Your task to perform on an android device: Open Yahoo.com Image 0: 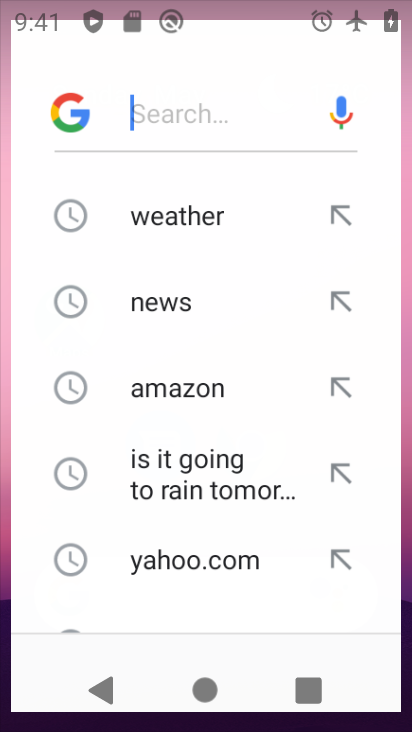
Step 0: drag from (211, 503) to (268, 100)
Your task to perform on an android device: Open Yahoo.com Image 1: 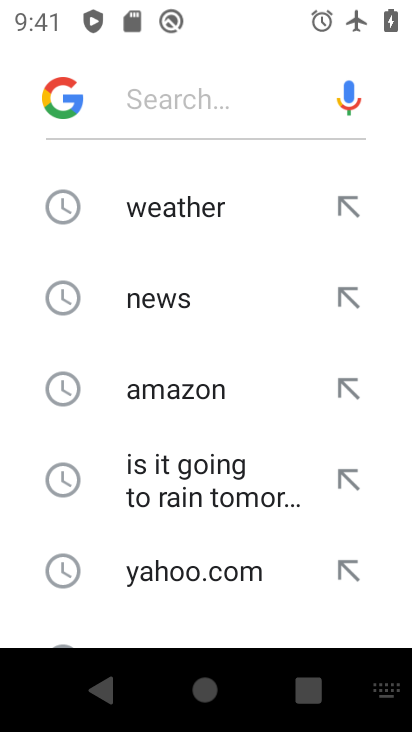
Step 1: press home button
Your task to perform on an android device: Open Yahoo.com Image 2: 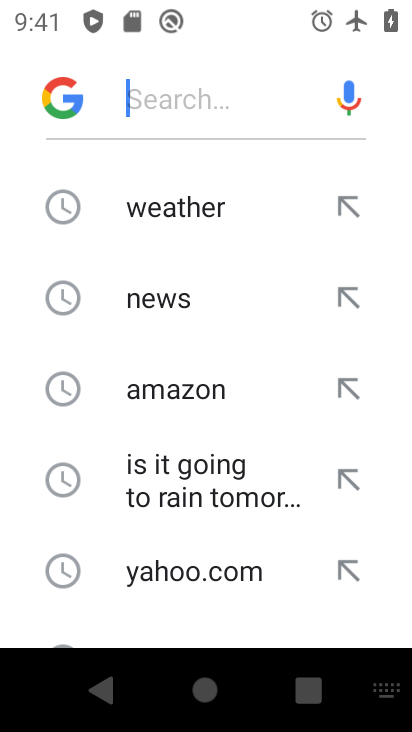
Step 2: press home button
Your task to perform on an android device: Open Yahoo.com Image 3: 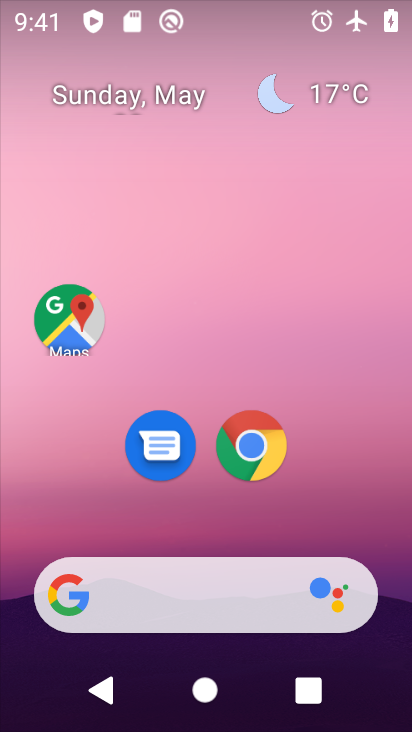
Step 3: drag from (230, 517) to (235, 158)
Your task to perform on an android device: Open Yahoo.com Image 4: 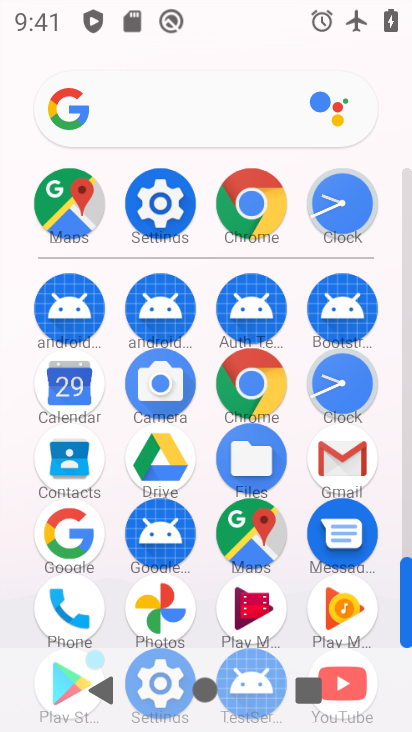
Step 4: click (167, 111)
Your task to perform on an android device: Open Yahoo.com Image 5: 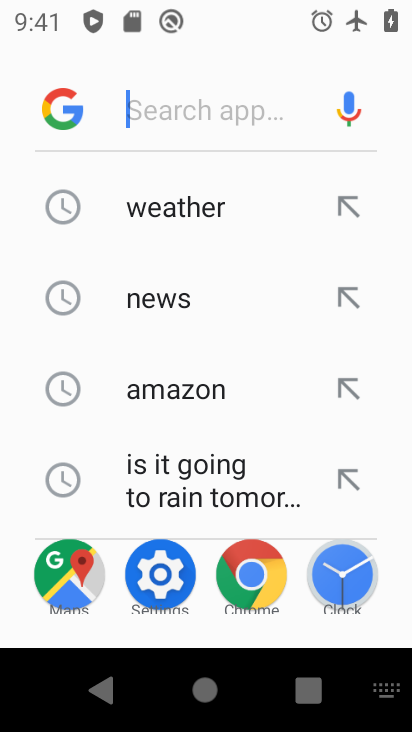
Step 5: click (159, 111)
Your task to perform on an android device: Open Yahoo.com Image 6: 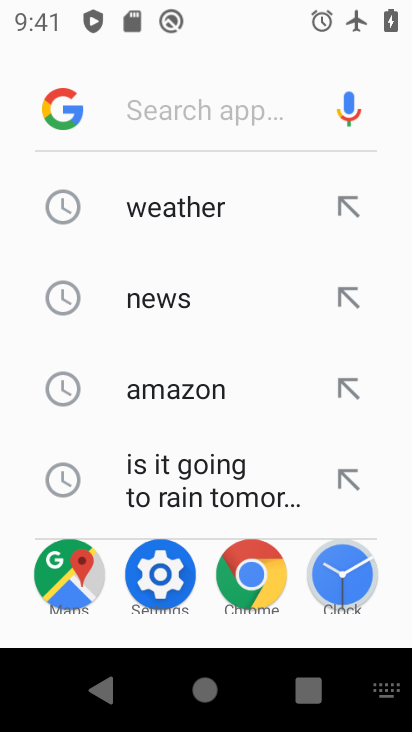
Step 6: type "Yahoo.com"
Your task to perform on an android device: Open Yahoo.com Image 7: 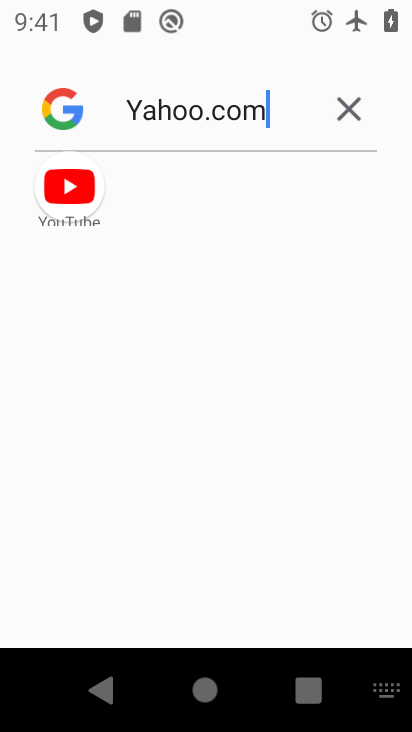
Step 7: type ""
Your task to perform on an android device: Open Yahoo.com Image 8: 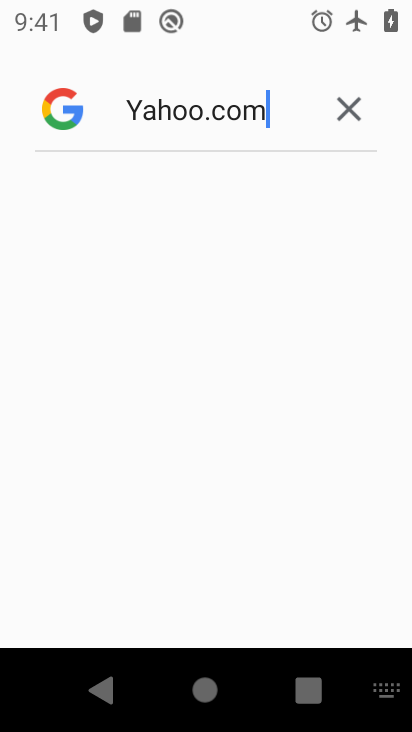
Step 8: click (270, 252)
Your task to perform on an android device: Open Yahoo.com Image 9: 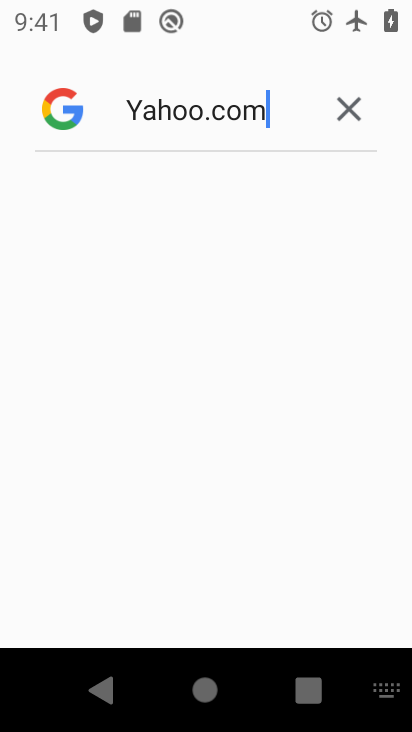
Step 9: task complete